Your task to perform on an android device: toggle javascript in the chrome app Image 0: 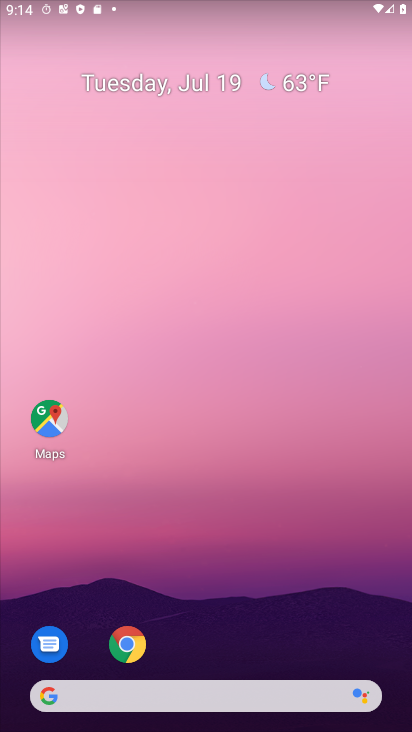
Step 0: drag from (316, 717) to (303, 54)
Your task to perform on an android device: toggle javascript in the chrome app Image 1: 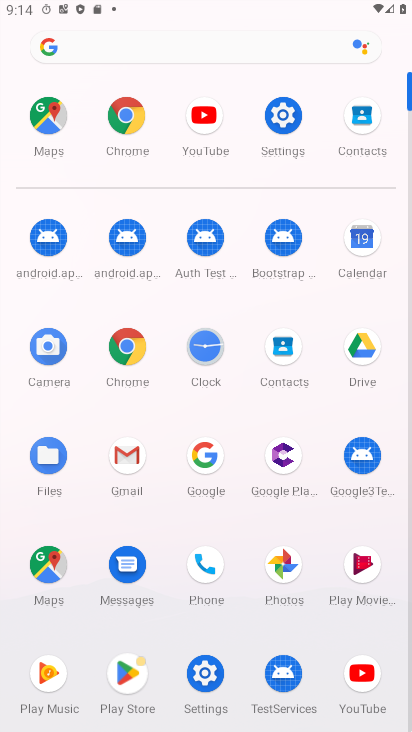
Step 1: click (128, 117)
Your task to perform on an android device: toggle javascript in the chrome app Image 2: 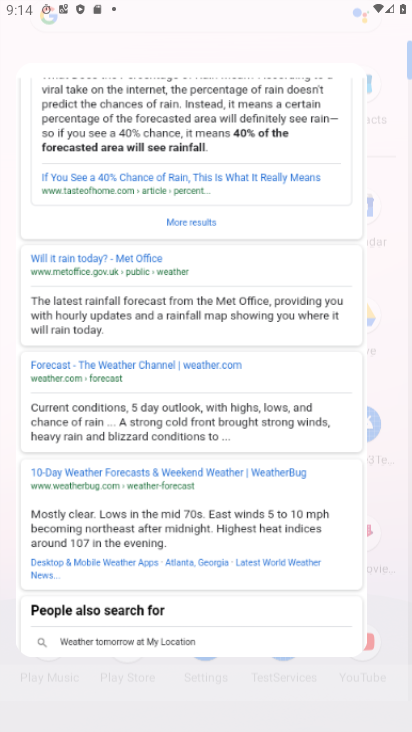
Step 2: click (137, 111)
Your task to perform on an android device: toggle javascript in the chrome app Image 3: 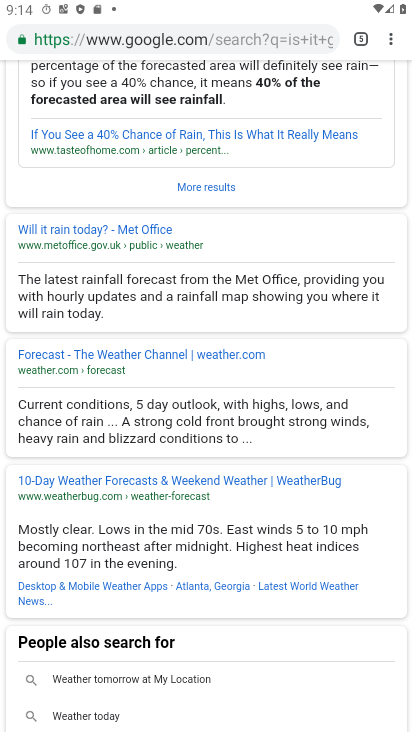
Step 3: drag from (278, 331) to (278, 428)
Your task to perform on an android device: toggle javascript in the chrome app Image 4: 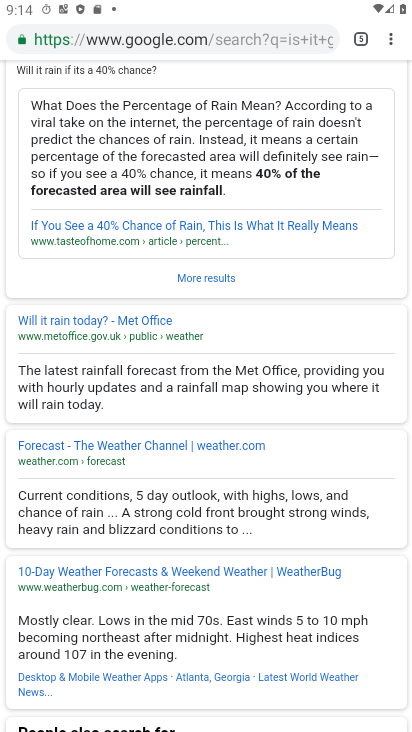
Step 4: drag from (394, 41) to (249, 431)
Your task to perform on an android device: toggle javascript in the chrome app Image 5: 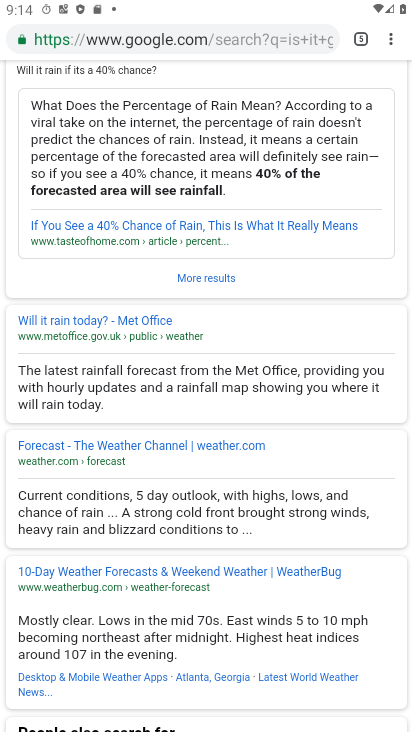
Step 5: click (250, 433)
Your task to perform on an android device: toggle javascript in the chrome app Image 6: 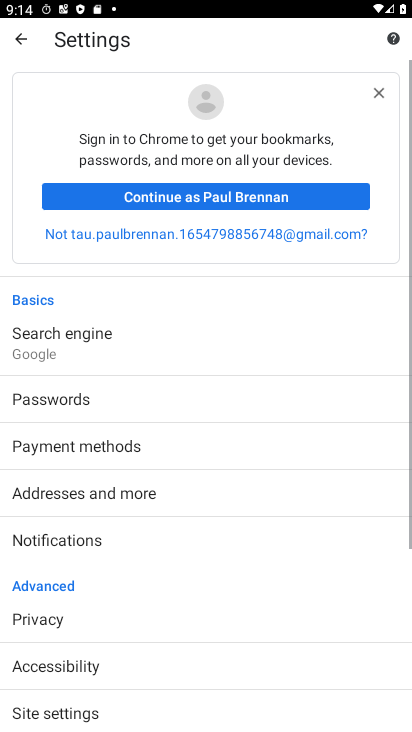
Step 6: drag from (137, 442) to (110, 219)
Your task to perform on an android device: toggle javascript in the chrome app Image 7: 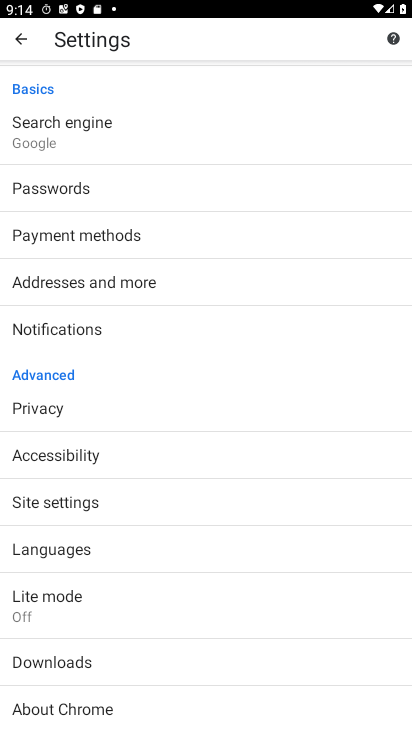
Step 7: drag from (82, 233) to (95, 554)
Your task to perform on an android device: toggle javascript in the chrome app Image 8: 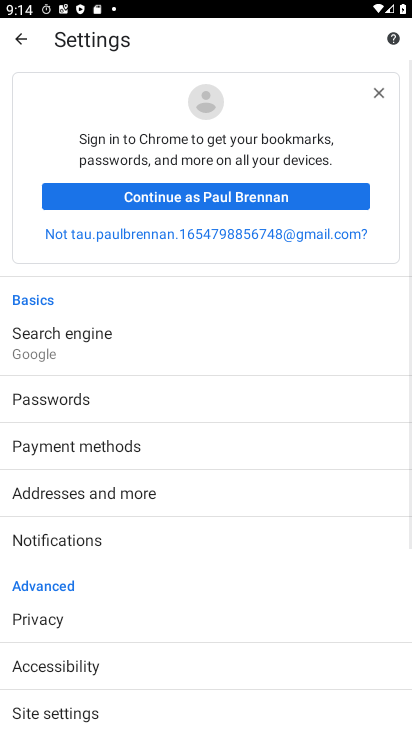
Step 8: drag from (80, 577) to (98, 222)
Your task to perform on an android device: toggle javascript in the chrome app Image 9: 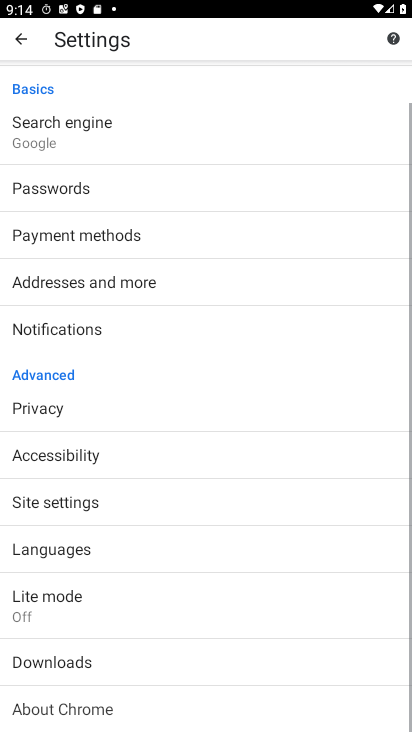
Step 9: drag from (127, 617) to (123, 302)
Your task to perform on an android device: toggle javascript in the chrome app Image 10: 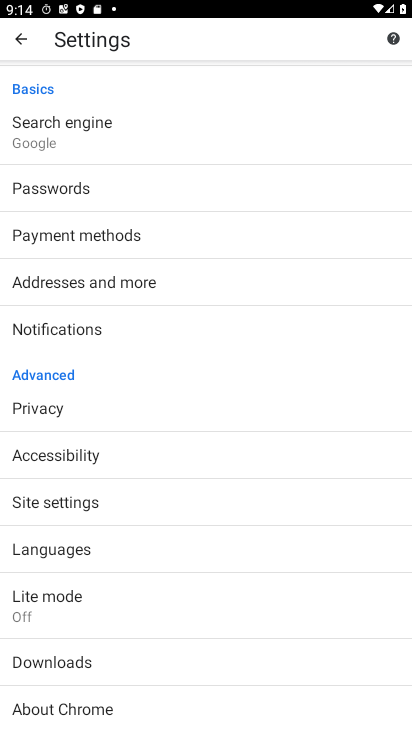
Step 10: drag from (123, 544) to (123, 238)
Your task to perform on an android device: toggle javascript in the chrome app Image 11: 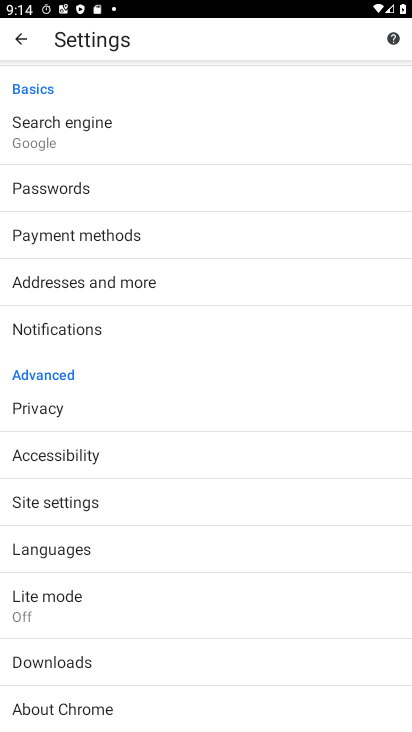
Step 11: drag from (82, 639) to (62, 375)
Your task to perform on an android device: toggle javascript in the chrome app Image 12: 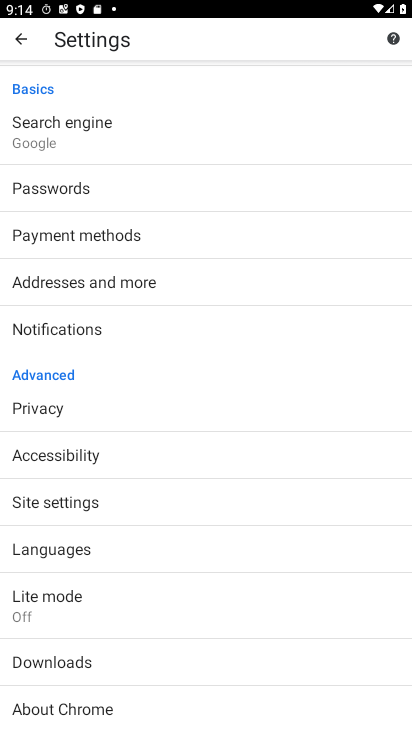
Step 12: drag from (83, 571) to (125, 217)
Your task to perform on an android device: toggle javascript in the chrome app Image 13: 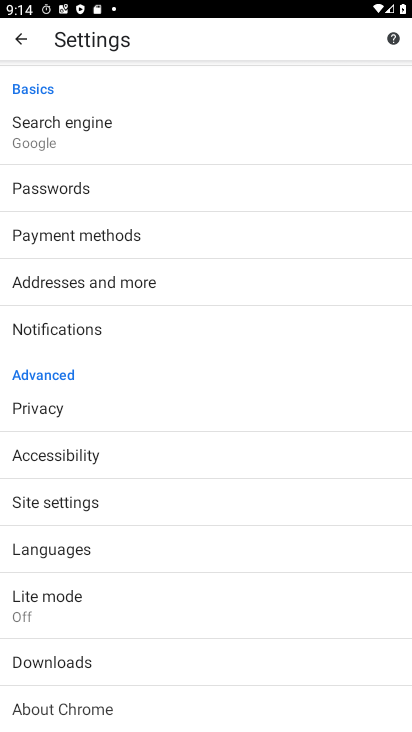
Step 13: drag from (134, 382) to (134, 307)
Your task to perform on an android device: toggle javascript in the chrome app Image 14: 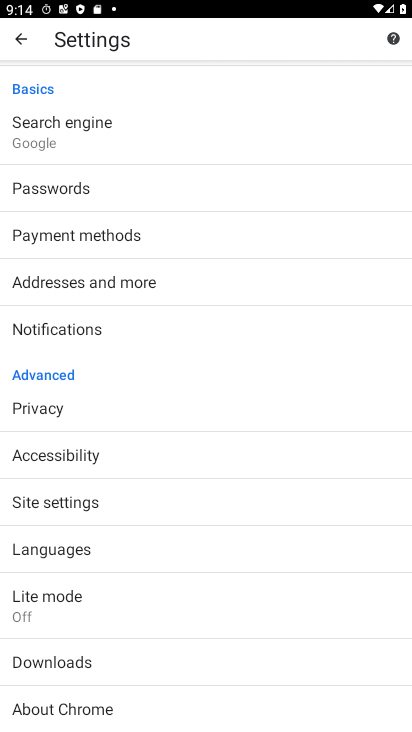
Step 14: click (46, 494)
Your task to perform on an android device: toggle javascript in the chrome app Image 15: 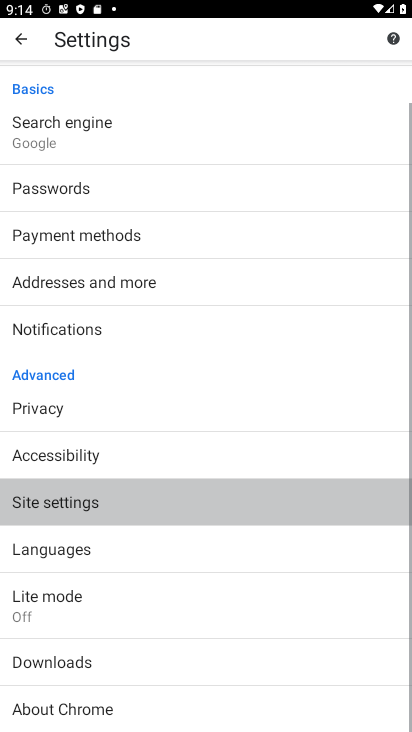
Step 15: click (50, 494)
Your task to perform on an android device: toggle javascript in the chrome app Image 16: 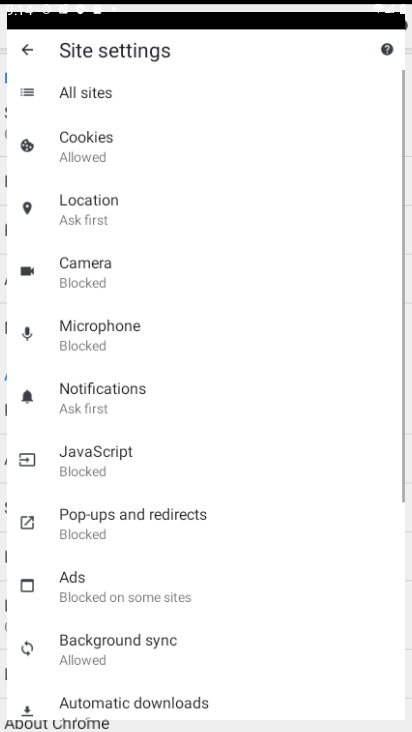
Step 16: click (50, 494)
Your task to perform on an android device: toggle javascript in the chrome app Image 17: 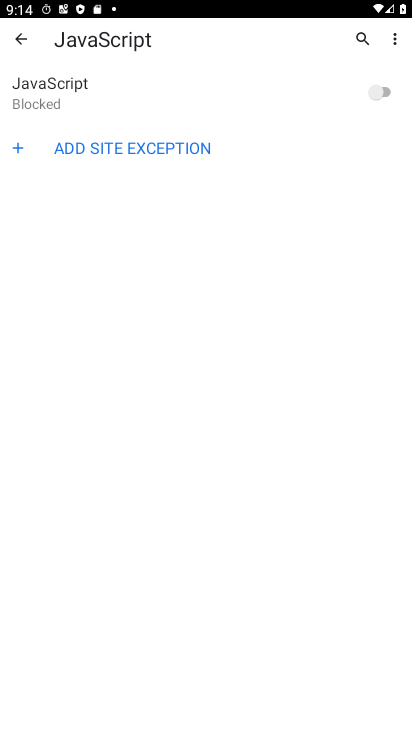
Step 17: click (382, 84)
Your task to perform on an android device: toggle javascript in the chrome app Image 18: 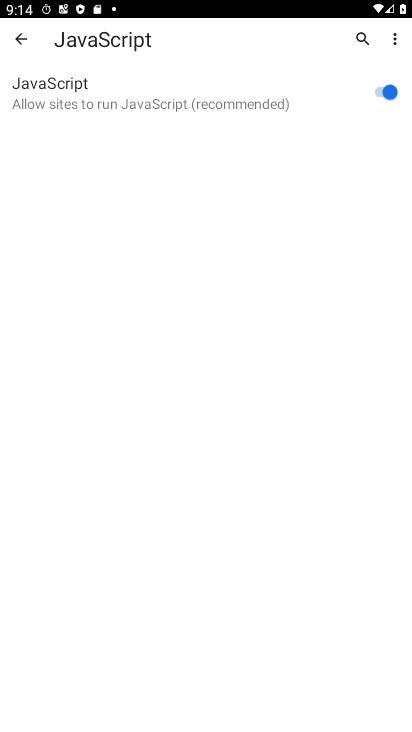
Step 18: task complete